Your task to perform on an android device: turn on data saver in the chrome app Image 0: 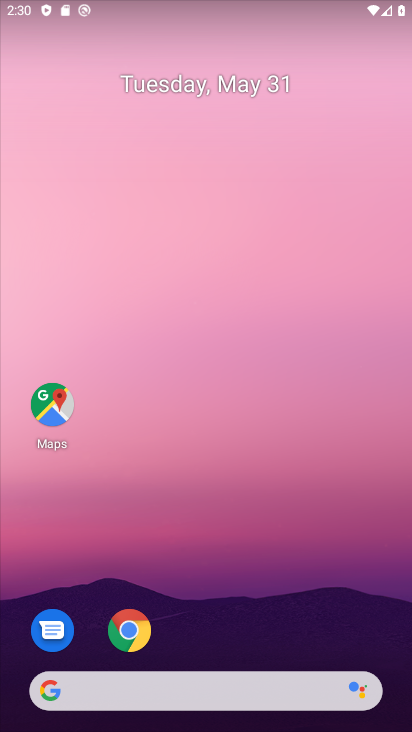
Step 0: click (136, 636)
Your task to perform on an android device: turn on data saver in the chrome app Image 1: 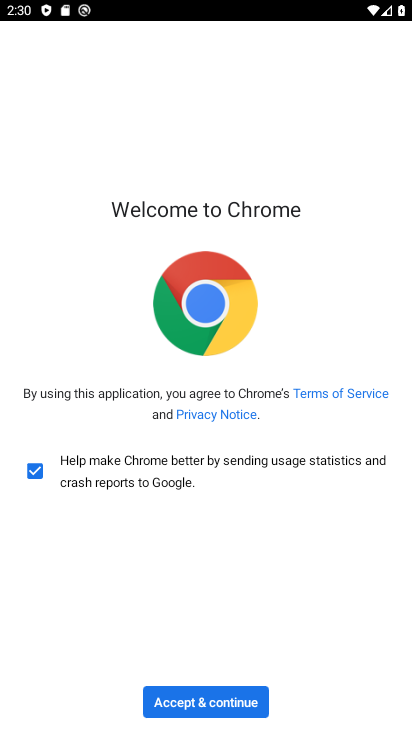
Step 1: click (218, 700)
Your task to perform on an android device: turn on data saver in the chrome app Image 2: 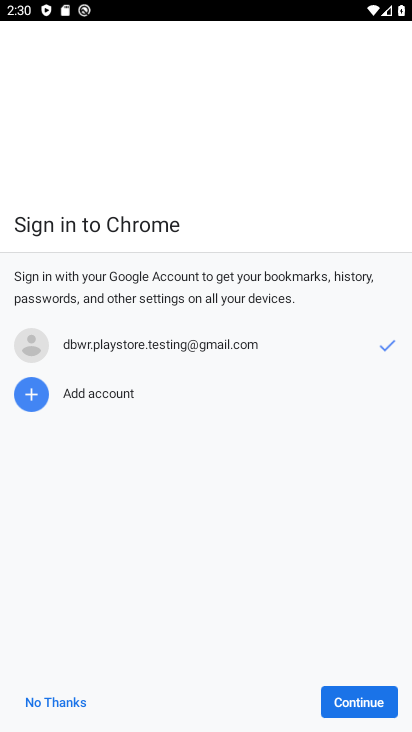
Step 2: click (388, 709)
Your task to perform on an android device: turn on data saver in the chrome app Image 3: 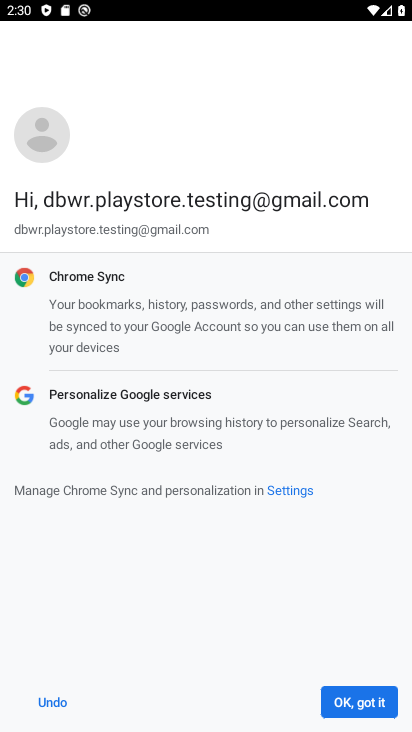
Step 3: click (375, 695)
Your task to perform on an android device: turn on data saver in the chrome app Image 4: 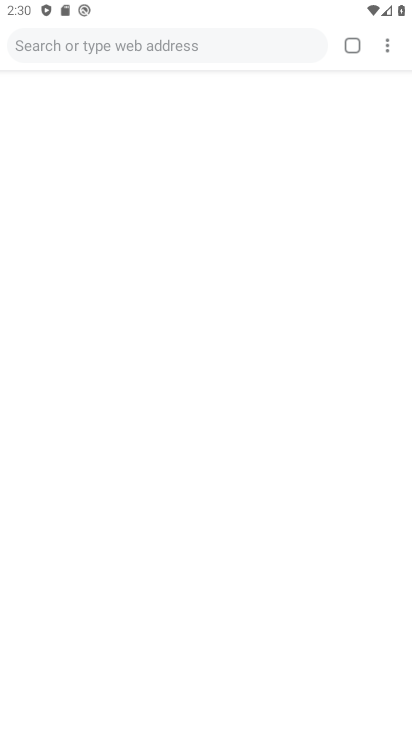
Step 4: click (371, 698)
Your task to perform on an android device: turn on data saver in the chrome app Image 5: 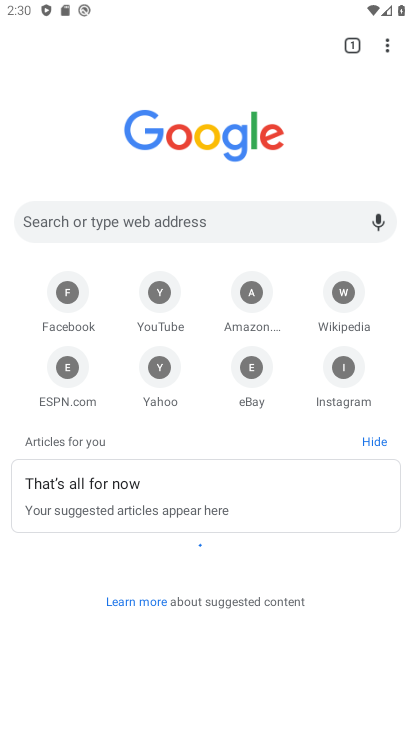
Step 5: click (390, 47)
Your task to perform on an android device: turn on data saver in the chrome app Image 6: 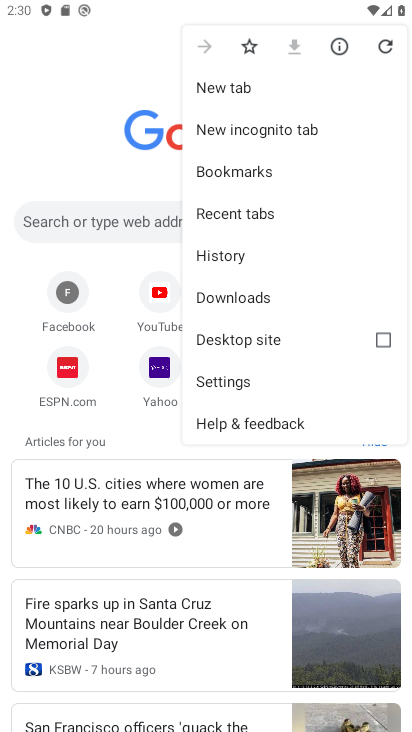
Step 6: click (224, 393)
Your task to perform on an android device: turn on data saver in the chrome app Image 7: 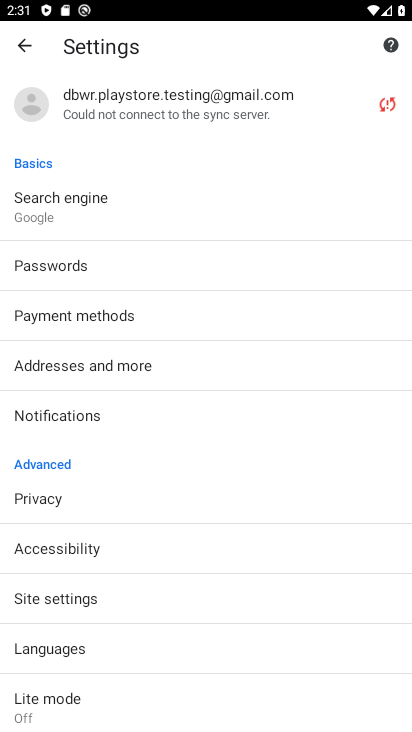
Step 7: click (98, 676)
Your task to perform on an android device: turn on data saver in the chrome app Image 8: 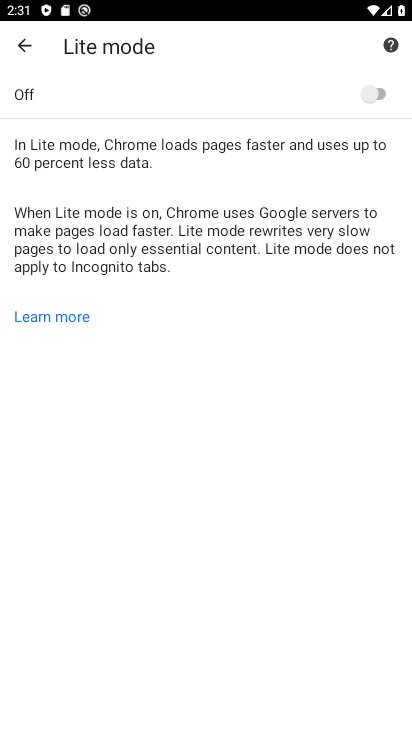
Step 8: click (378, 102)
Your task to perform on an android device: turn on data saver in the chrome app Image 9: 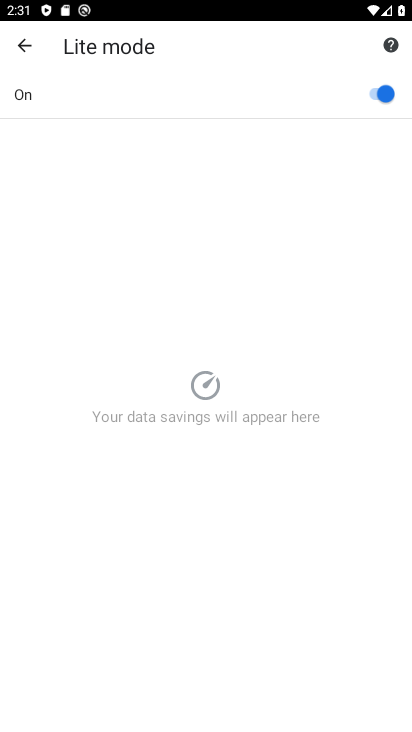
Step 9: task complete